Your task to perform on an android device: change the clock style Image 0: 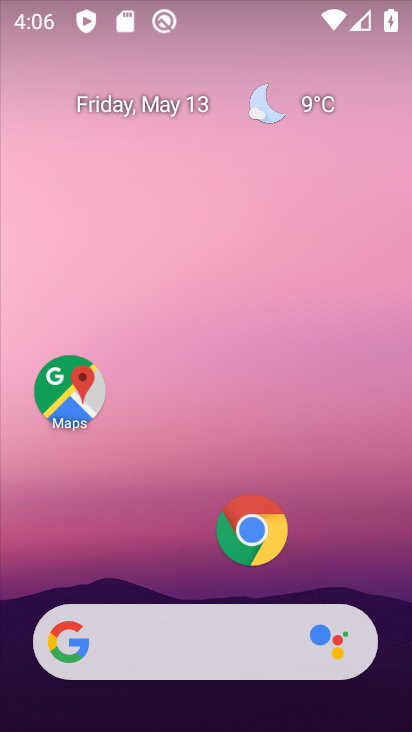
Step 0: drag from (194, 590) to (222, 68)
Your task to perform on an android device: change the clock style Image 1: 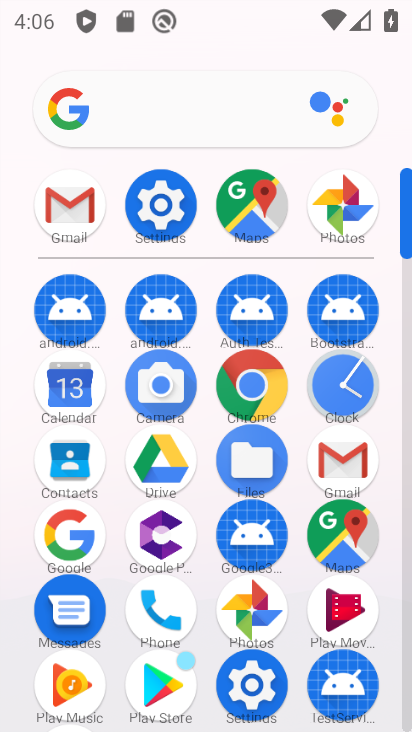
Step 1: click (344, 377)
Your task to perform on an android device: change the clock style Image 2: 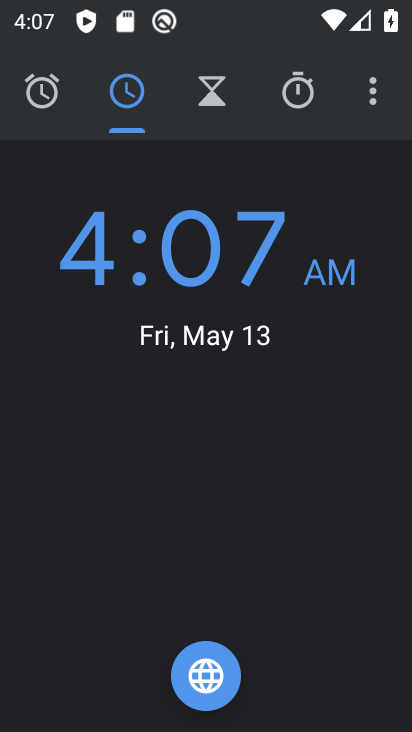
Step 2: click (374, 98)
Your task to perform on an android device: change the clock style Image 3: 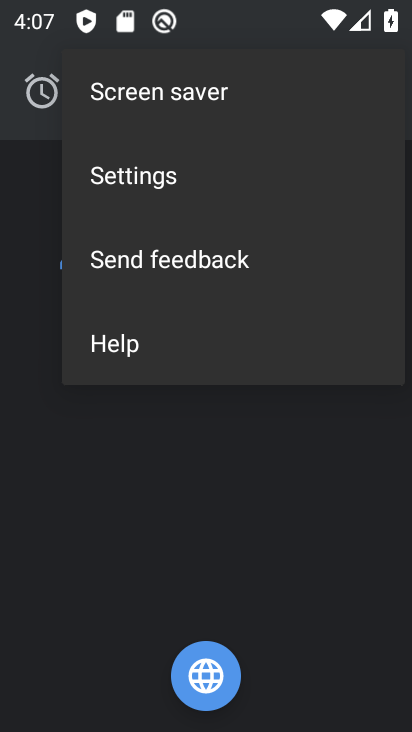
Step 3: click (206, 186)
Your task to perform on an android device: change the clock style Image 4: 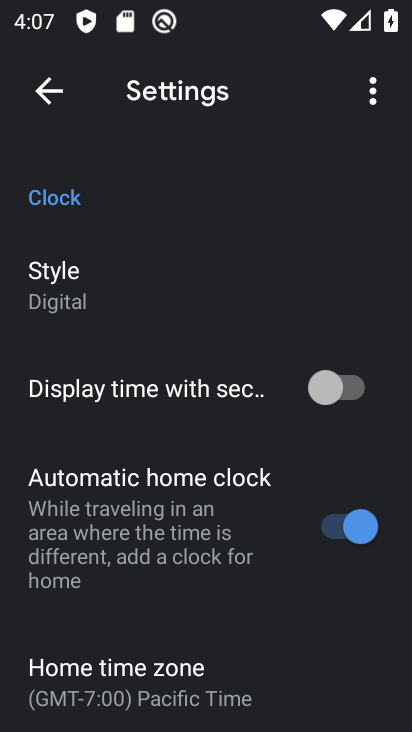
Step 4: click (112, 282)
Your task to perform on an android device: change the clock style Image 5: 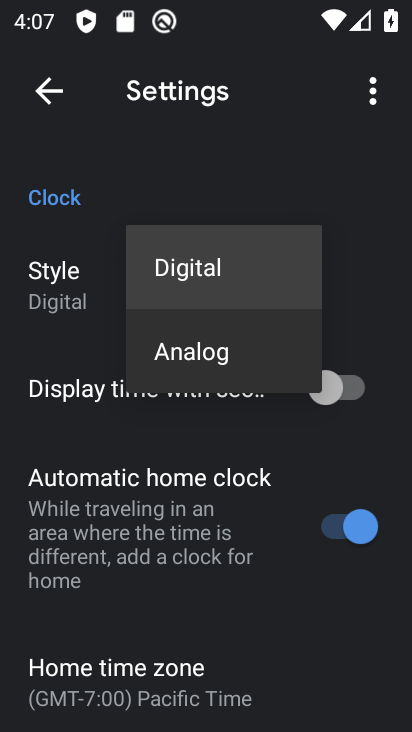
Step 5: click (246, 357)
Your task to perform on an android device: change the clock style Image 6: 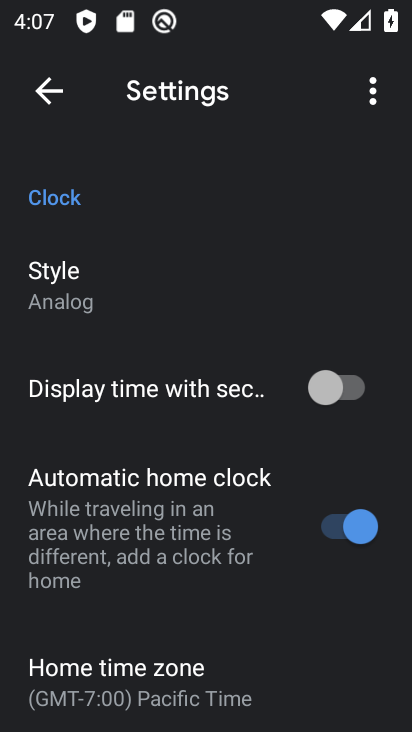
Step 6: task complete